Your task to perform on an android device: Turn off the flashlight Image 0: 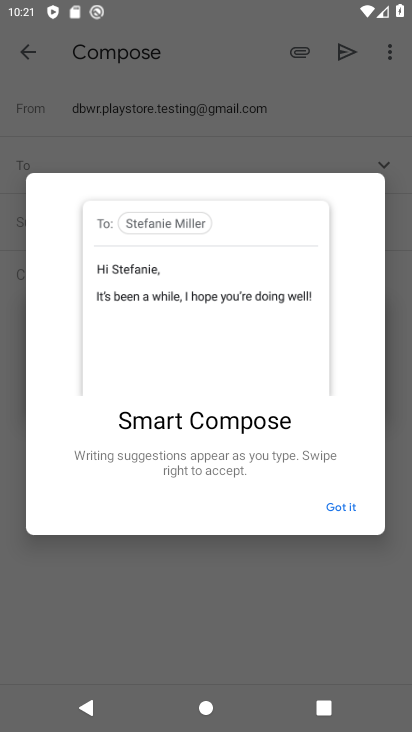
Step 0: press home button
Your task to perform on an android device: Turn off the flashlight Image 1: 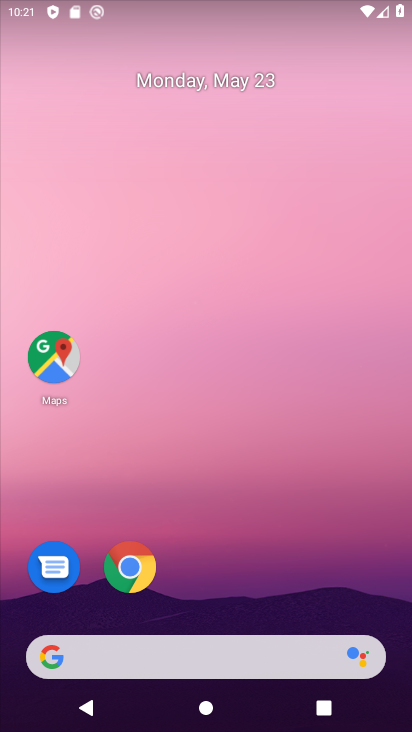
Step 1: task complete